Your task to perform on an android device: empty trash in google photos Image 0: 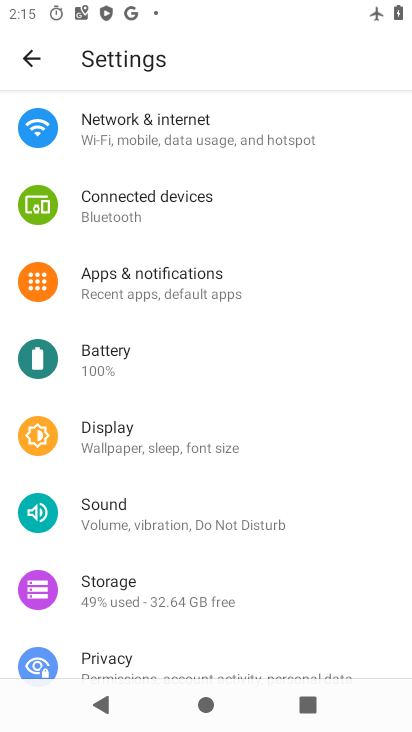
Step 0: press home button
Your task to perform on an android device: empty trash in google photos Image 1: 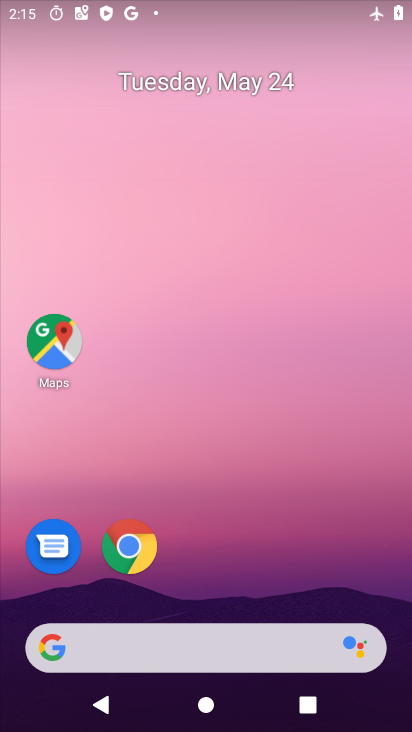
Step 1: drag from (206, 637) to (209, 144)
Your task to perform on an android device: empty trash in google photos Image 2: 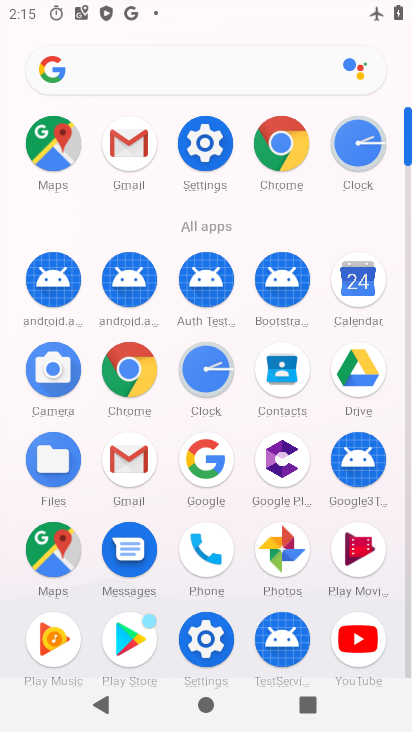
Step 2: click (261, 549)
Your task to perform on an android device: empty trash in google photos Image 3: 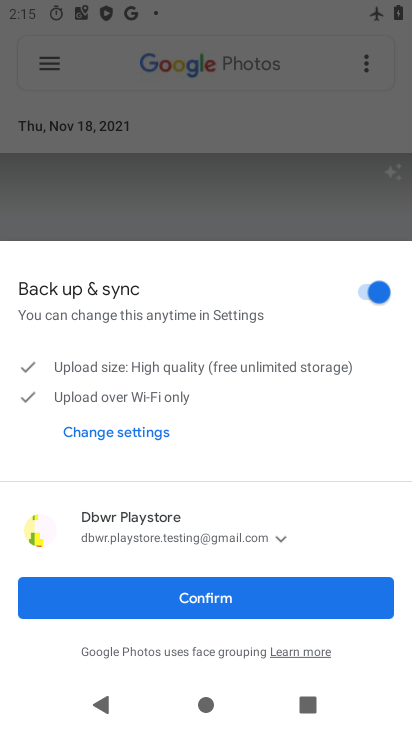
Step 3: click (221, 617)
Your task to perform on an android device: empty trash in google photos Image 4: 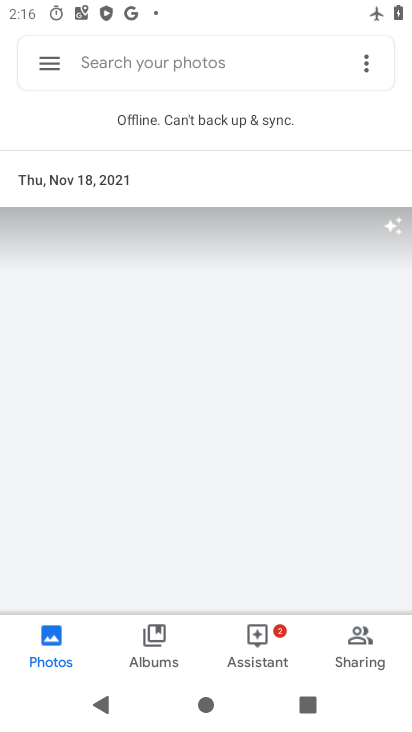
Step 4: click (45, 64)
Your task to perform on an android device: empty trash in google photos Image 5: 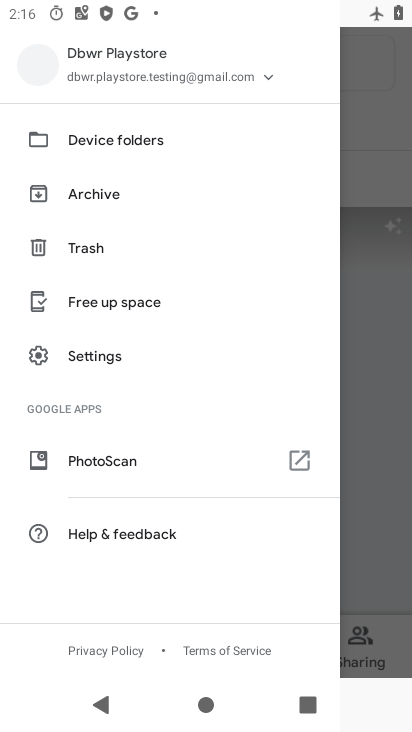
Step 5: click (76, 244)
Your task to perform on an android device: empty trash in google photos Image 6: 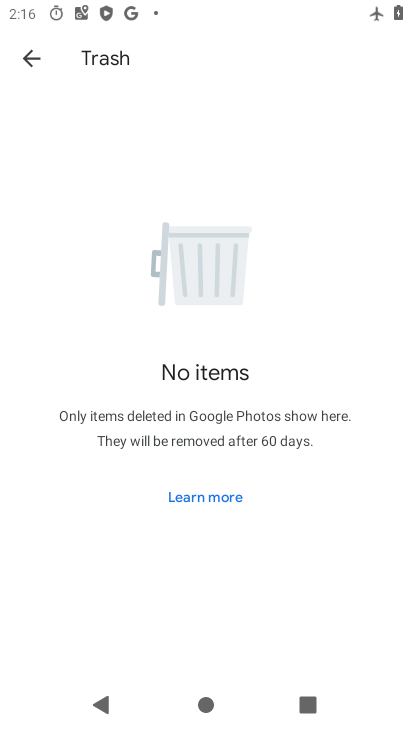
Step 6: task complete